Your task to perform on an android device: change the clock display to analog Image 0: 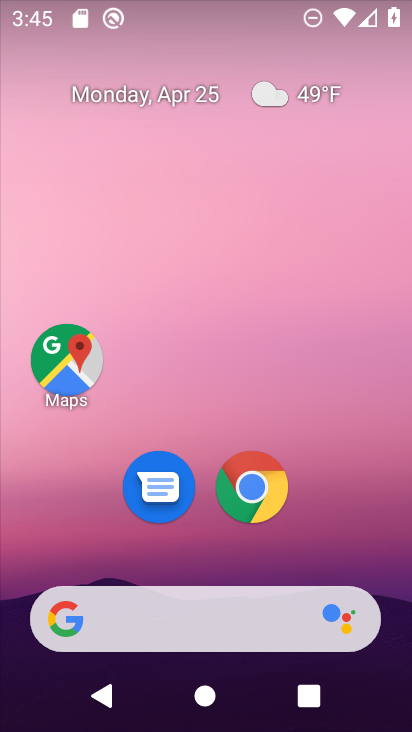
Step 0: drag from (376, 604) to (330, 3)
Your task to perform on an android device: change the clock display to analog Image 1: 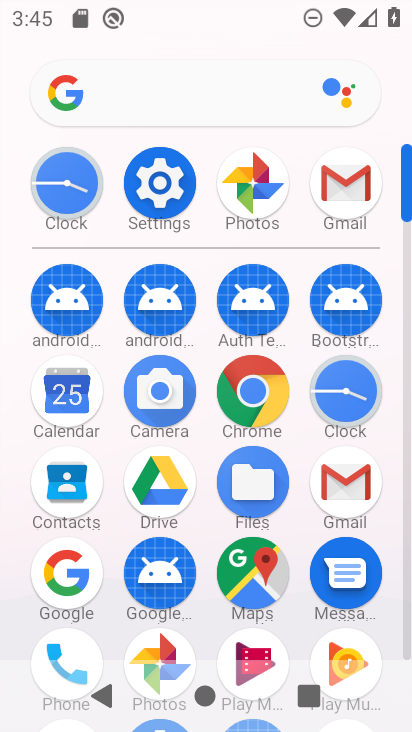
Step 1: click (57, 192)
Your task to perform on an android device: change the clock display to analog Image 2: 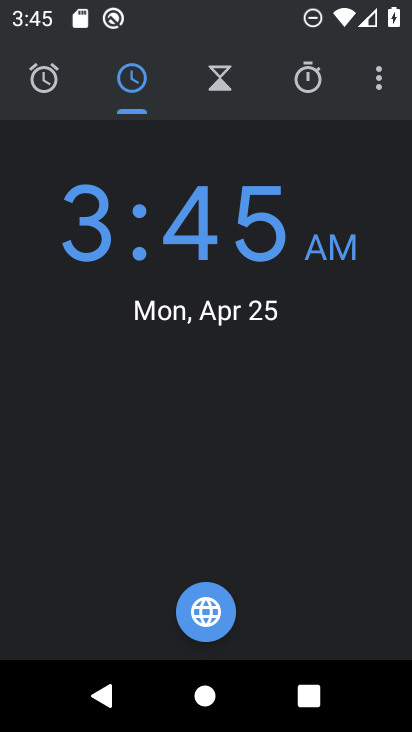
Step 2: click (375, 81)
Your task to perform on an android device: change the clock display to analog Image 3: 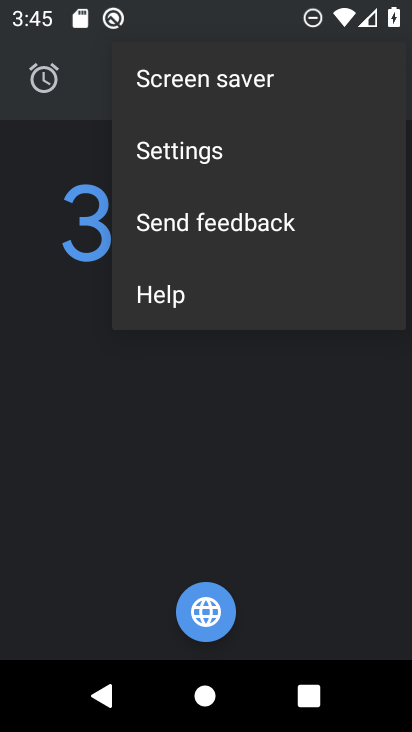
Step 3: click (200, 157)
Your task to perform on an android device: change the clock display to analog Image 4: 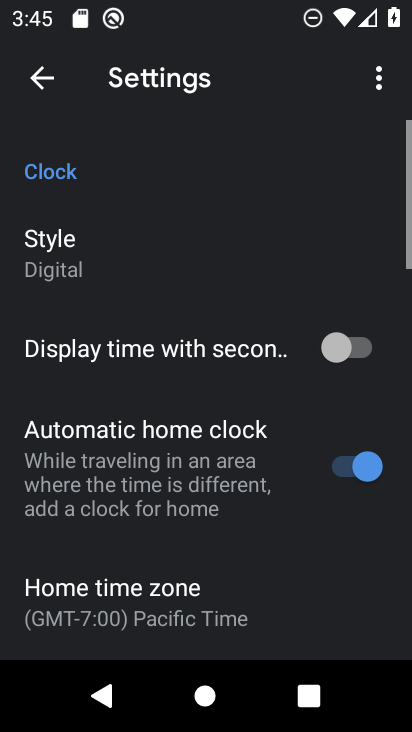
Step 4: click (54, 268)
Your task to perform on an android device: change the clock display to analog Image 5: 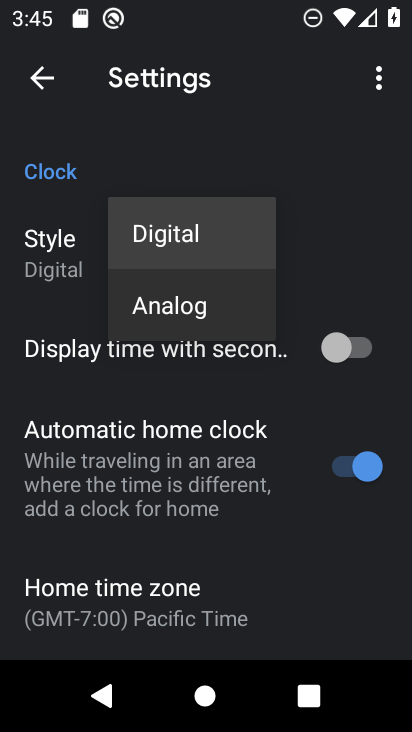
Step 5: click (162, 310)
Your task to perform on an android device: change the clock display to analog Image 6: 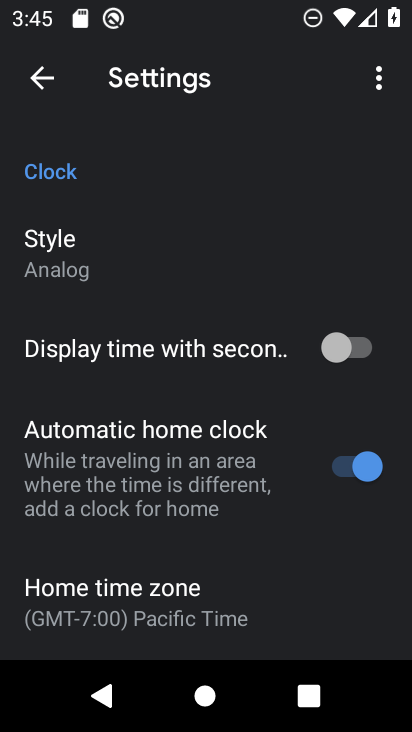
Step 6: task complete